Your task to perform on an android device: turn off location history Image 0: 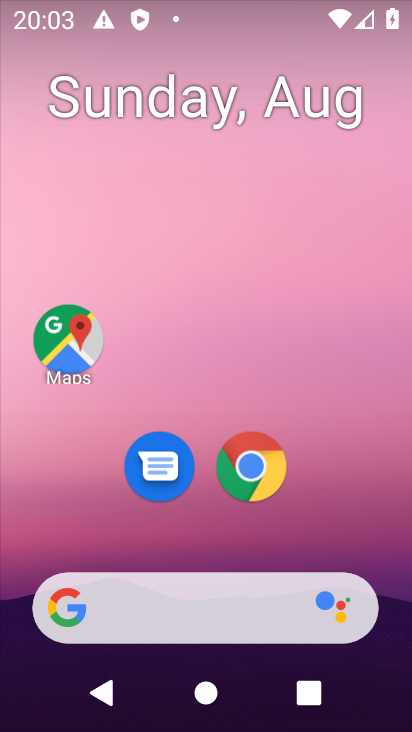
Step 0: drag from (356, 566) to (330, 11)
Your task to perform on an android device: turn off location history Image 1: 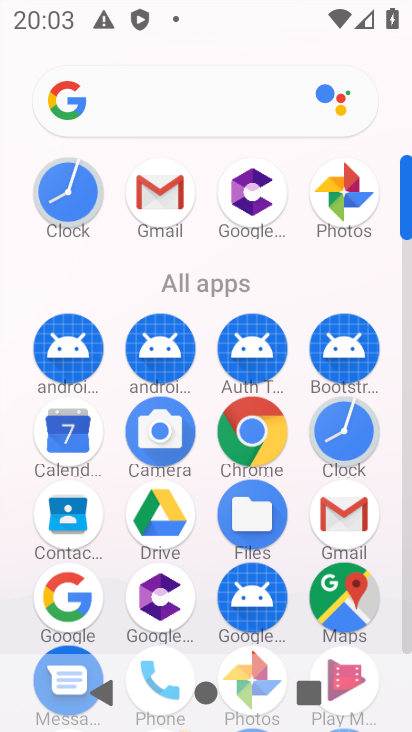
Step 1: drag from (199, 279) to (186, 0)
Your task to perform on an android device: turn off location history Image 2: 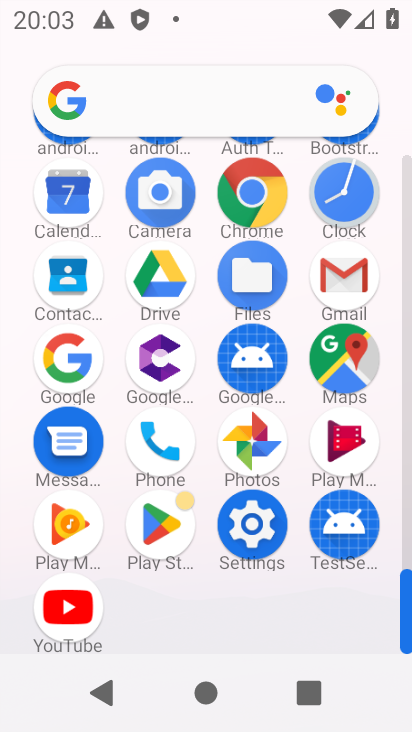
Step 2: click (258, 528)
Your task to perform on an android device: turn off location history Image 3: 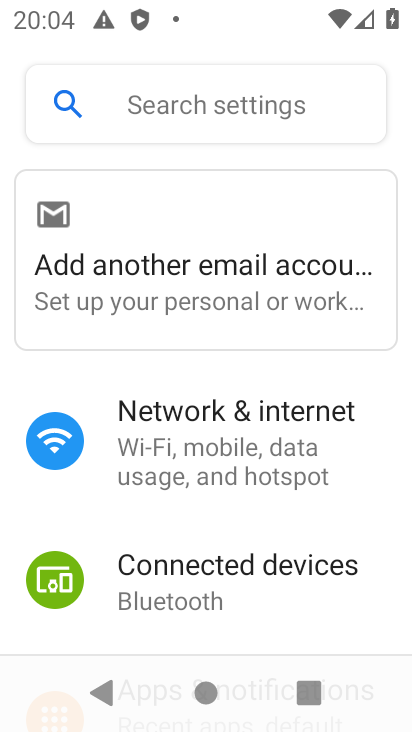
Step 3: drag from (259, 535) to (247, 334)
Your task to perform on an android device: turn off location history Image 4: 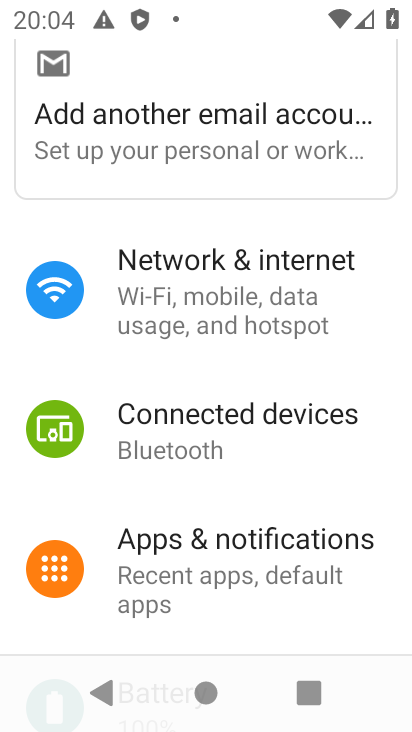
Step 4: drag from (277, 541) to (289, 65)
Your task to perform on an android device: turn off location history Image 5: 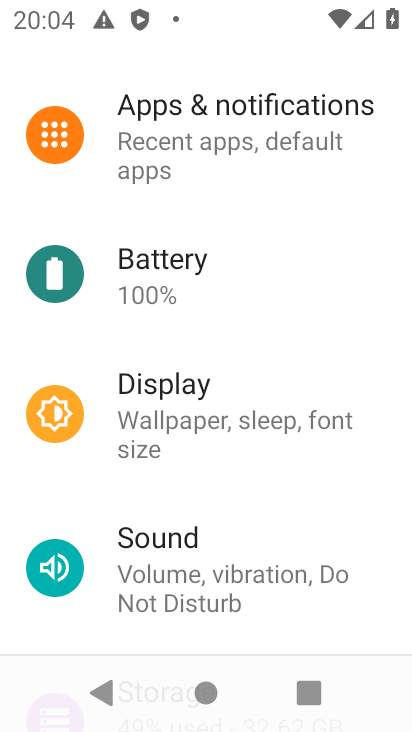
Step 5: drag from (328, 579) to (296, 97)
Your task to perform on an android device: turn off location history Image 6: 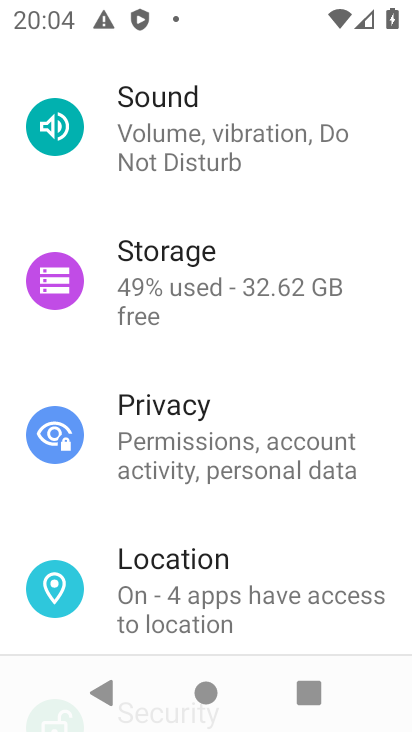
Step 6: click (212, 563)
Your task to perform on an android device: turn off location history Image 7: 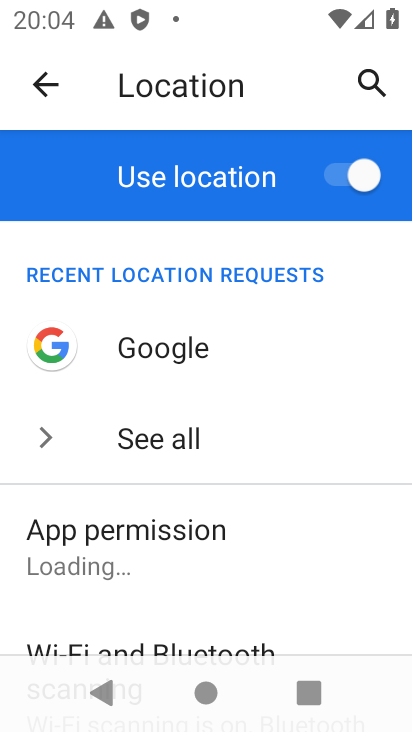
Step 7: drag from (215, 626) to (232, 173)
Your task to perform on an android device: turn off location history Image 8: 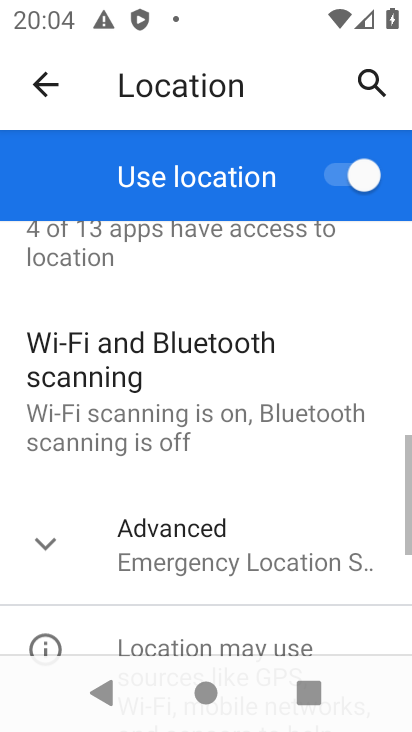
Step 8: click (249, 499)
Your task to perform on an android device: turn off location history Image 9: 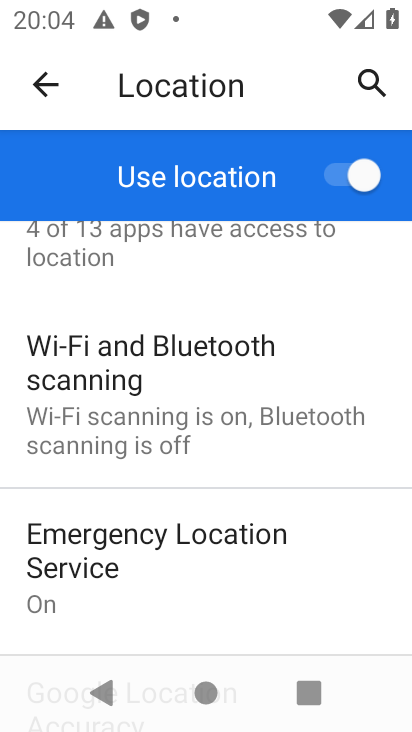
Step 9: drag from (179, 511) to (127, 83)
Your task to perform on an android device: turn off location history Image 10: 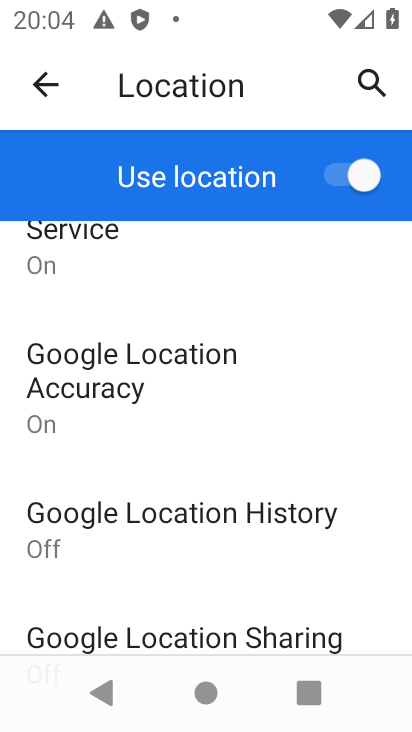
Step 10: click (231, 504)
Your task to perform on an android device: turn off location history Image 11: 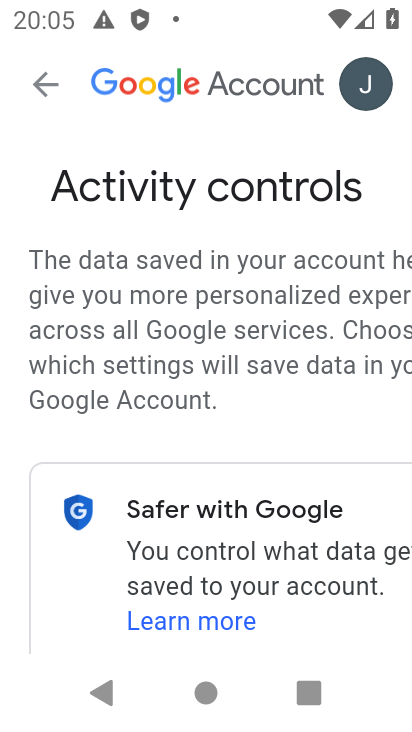
Step 11: task complete